Your task to perform on an android device: open app "Viber Messenger" (install if not already installed) Image 0: 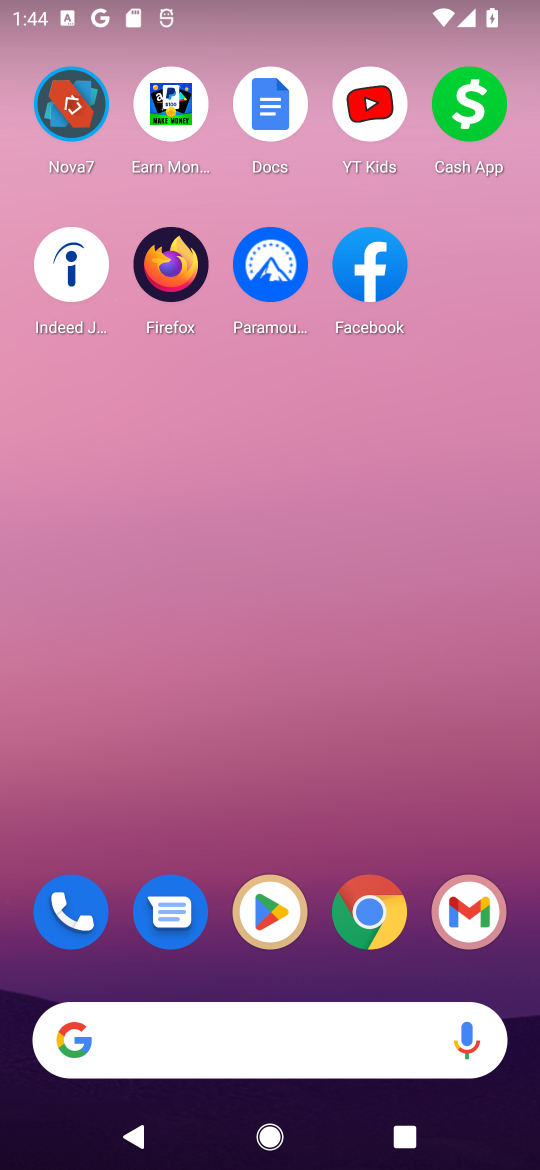
Step 0: click (264, 907)
Your task to perform on an android device: open app "Viber Messenger" (install if not already installed) Image 1: 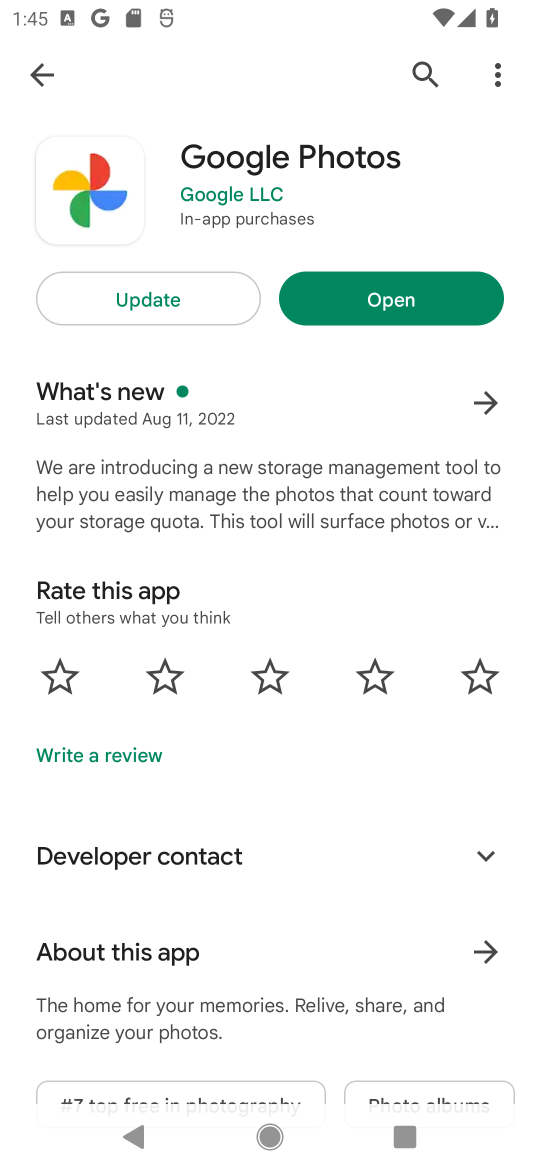
Step 1: click (418, 53)
Your task to perform on an android device: open app "Viber Messenger" (install if not already installed) Image 2: 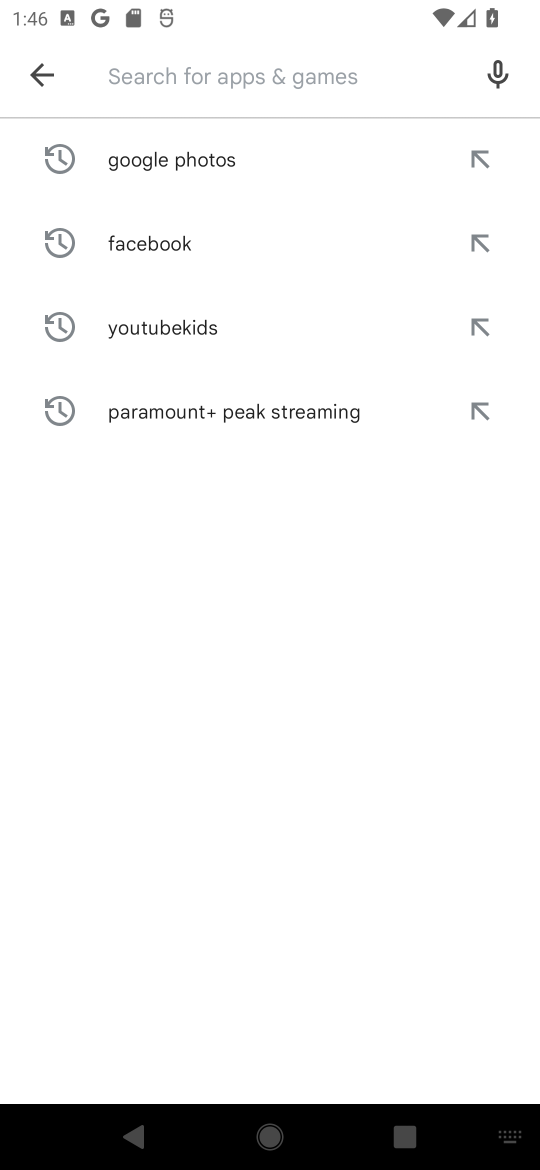
Step 2: click (134, 78)
Your task to perform on an android device: open app "Viber Messenger" (install if not already installed) Image 3: 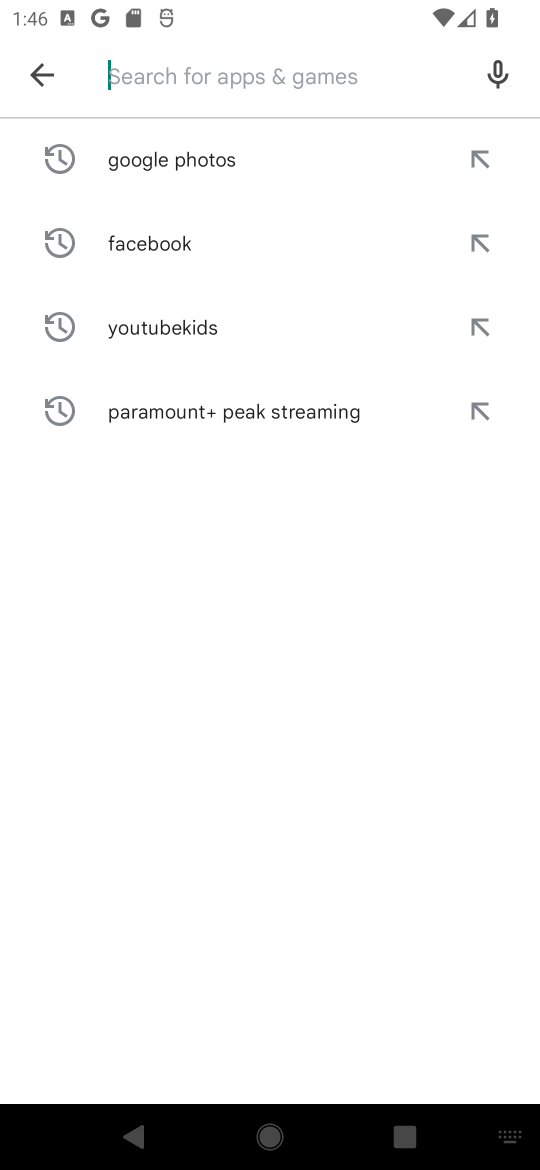
Step 3: click (134, 88)
Your task to perform on an android device: open app "Viber Messenger" (install if not already installed) Image 4: 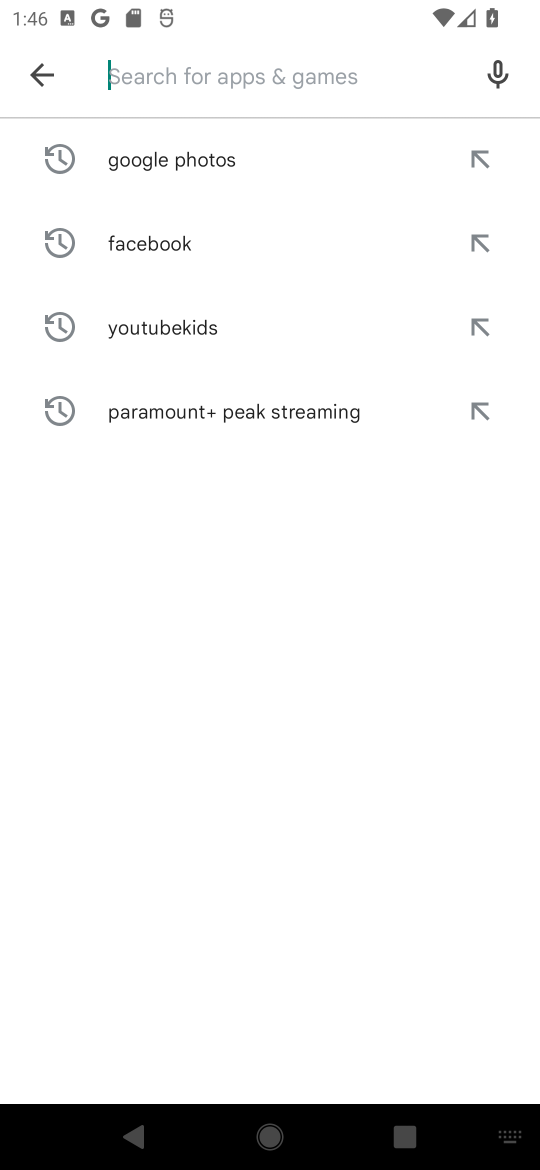
Step 4: type "Viber Messenger"
Your task to perform on an android device: open app "Viber Messenger" (install if not already installed) Image 5: 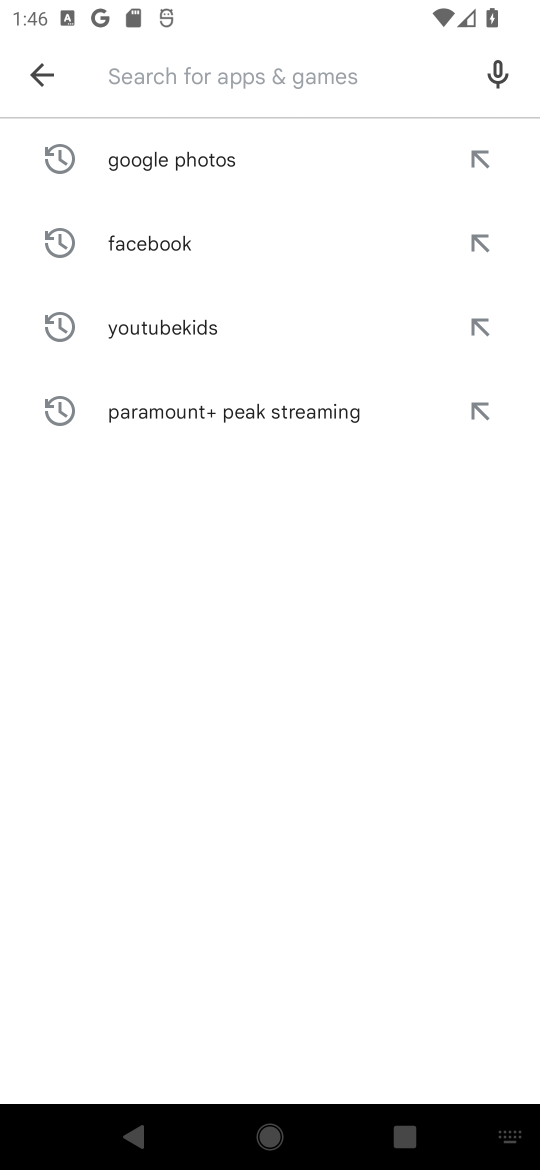
Step 5: click (244, 598)
Your task to perform on an android device: open app "Viber Messenger" (install if not already installed) Image 6: 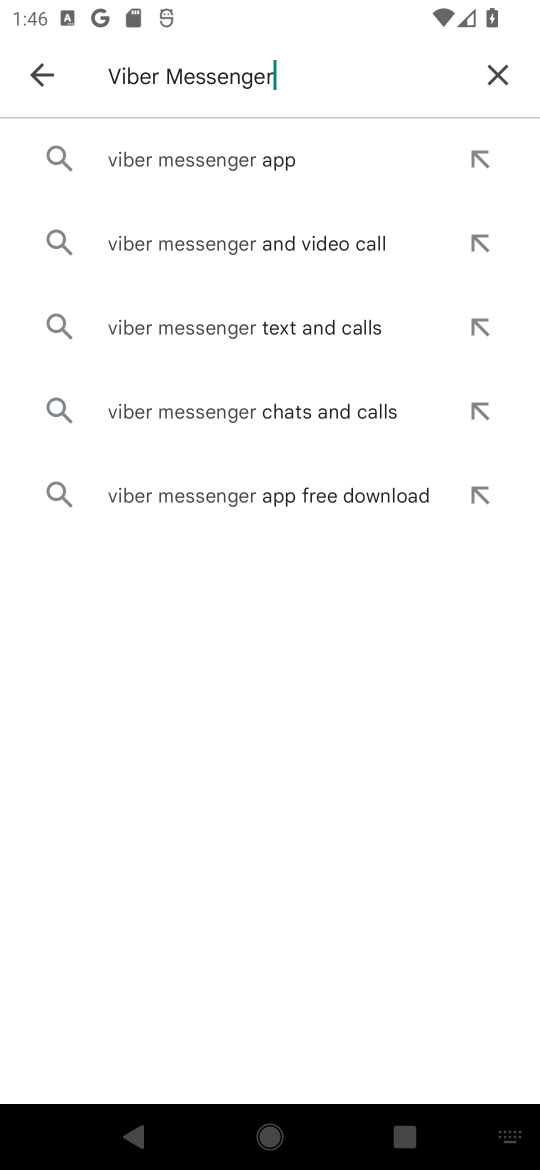
Step 6: click (216, 158)
Your task to perform on an android device: open app "Viber Messenger" (install if not already installed) Image 7: 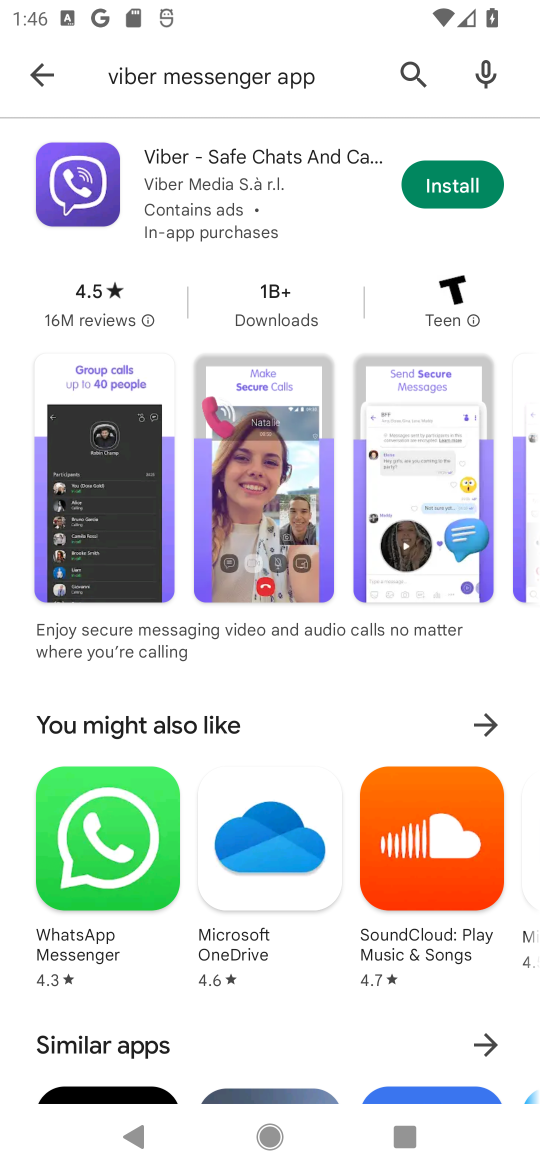
Step 7: click (438, 178)
Your task to perform on an android device: open app "Viber Messenger" (install if not already installed) Image 8: 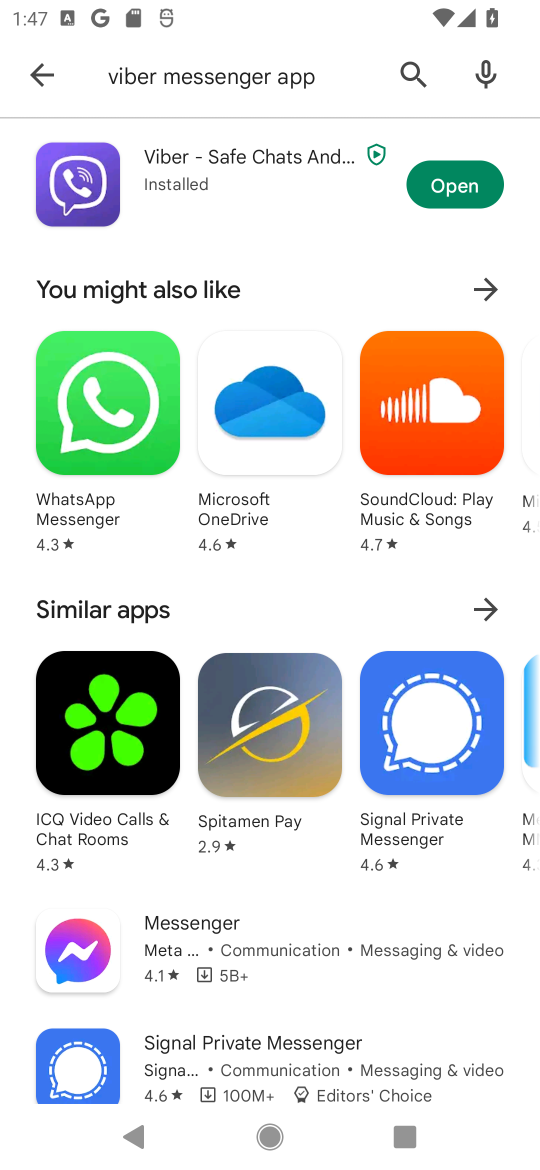
Step 8: click (466, 182)
Your task to perform on an android device: open app "Viber Messenger" (install if not already installed) Image 9: 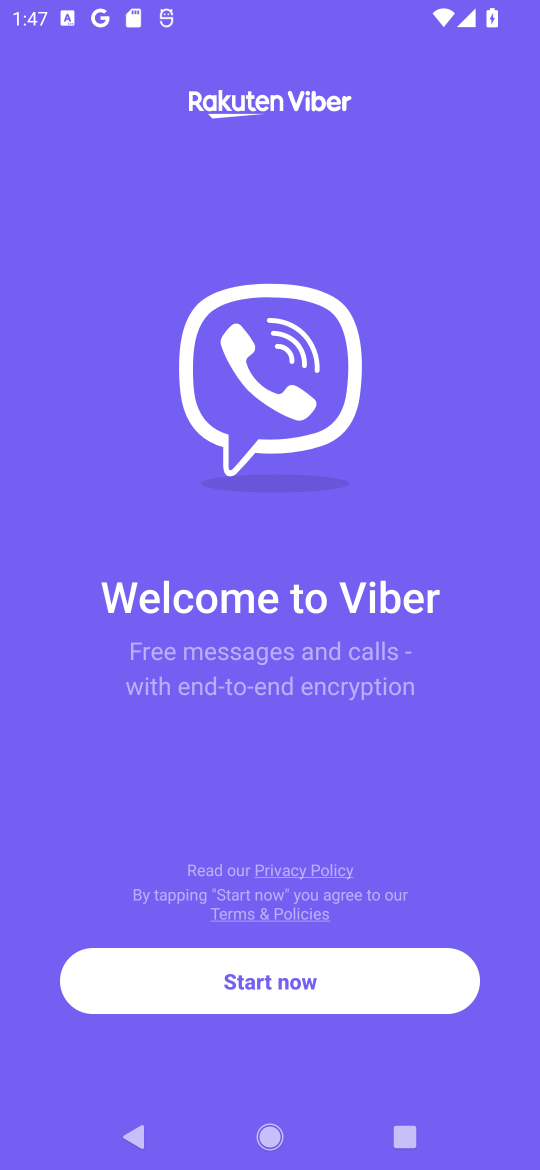
Step 9: task complete